Your task to perform on an android device: turn off location Image 0: 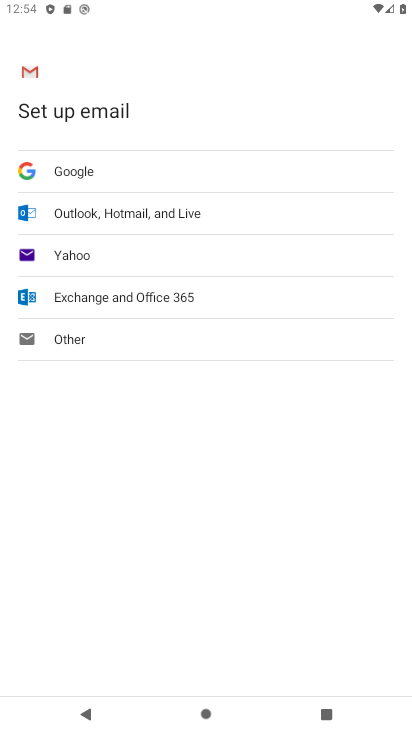
Step 0: press home button
Your task to perform on an android device: turn off location Image 1: 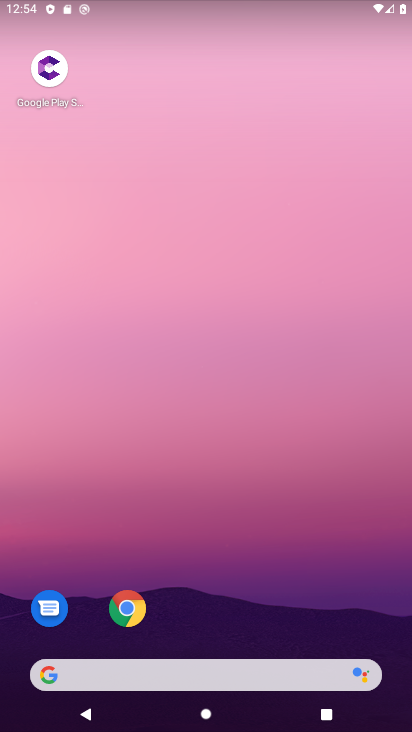
Step 1: drag from (217, 612) to (237, 45)
Your task to perform on an android device: turn off location Image 2: 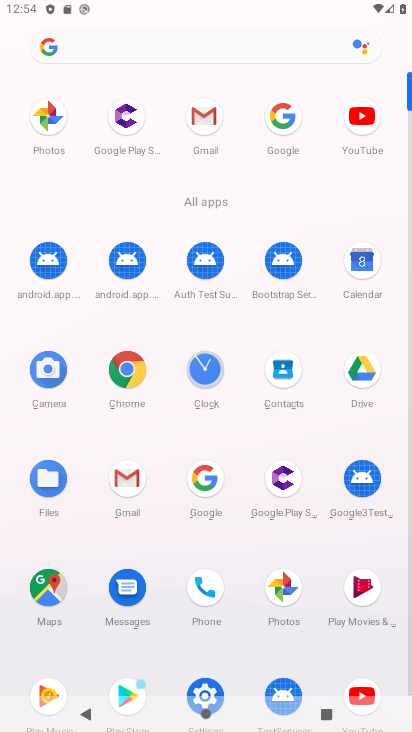
Step 2: click (205, 693)
Your task to perform on an android device: turn off location Image 3: 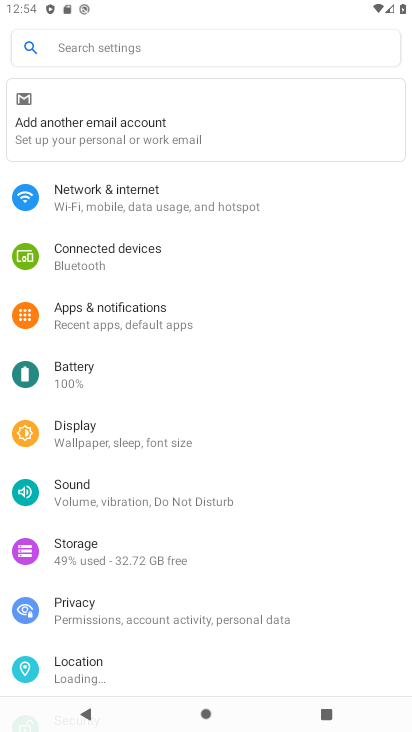
Step 3: drag from (121, 598) to (126, 350)
Your task to perform on an android device: turn off location Image 4: 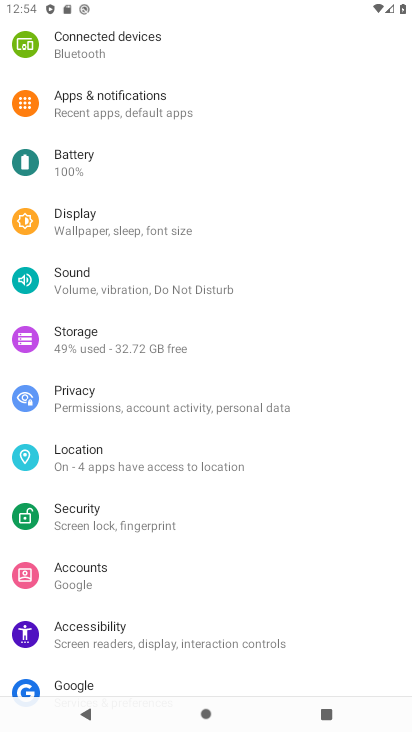
Step 4: click (87, 458)
Your task to perform on an android device: turn off location Image 5: 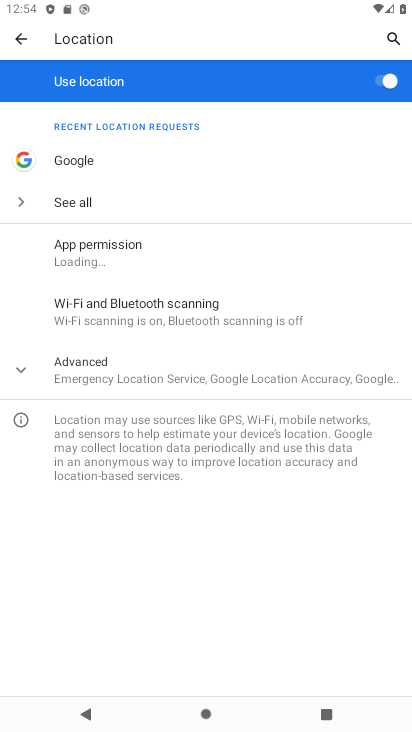
Step 5: click (395, 98)
Your task to perform on an android device: turn off location Image 6: 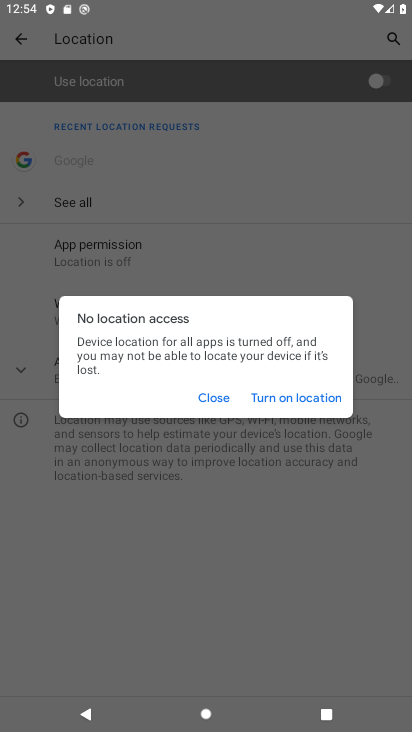
Step 6: click (216, 394)
Your task to perform on an android device: turn off location Image 7: 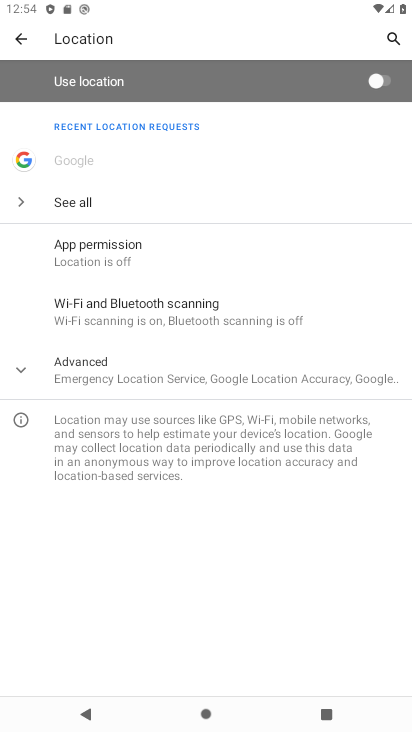
Step 7: task complete